Your task to perform on an android device: Open Maps and search for coffee Image 0: 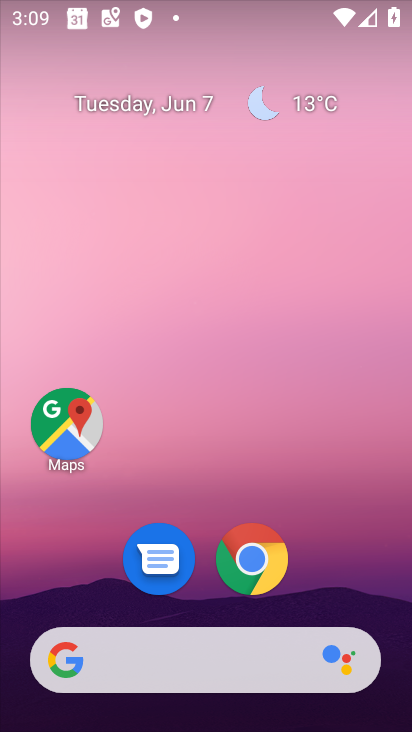
Step 0: click (69, 416)
Your task to perform on an android device: Open Maps and search for coffee Image 1: 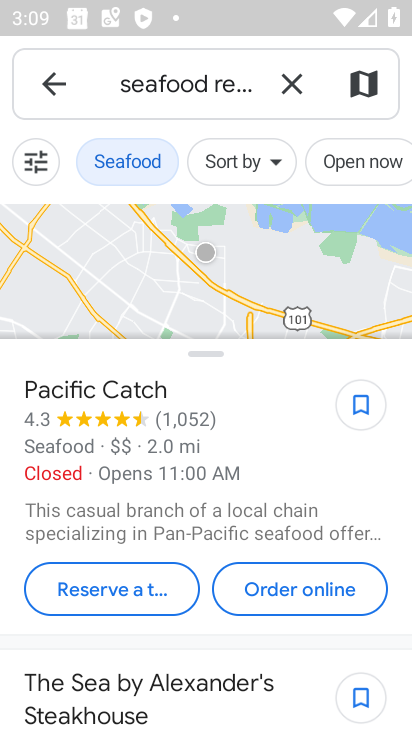
Step 1: click (296, 84)
Your task to perform on an android device: Open Maps and search for coffee Image 2: 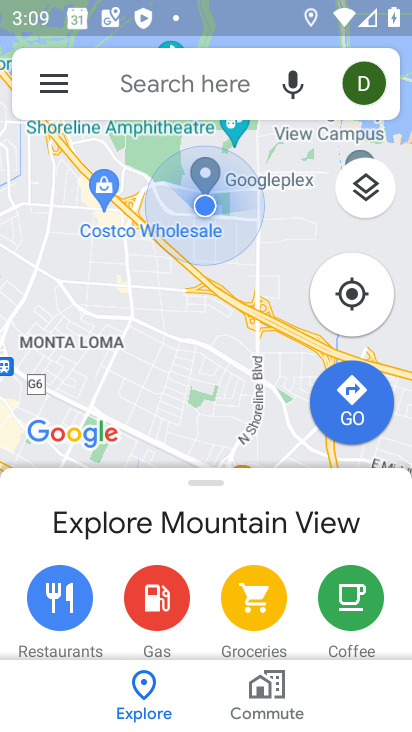
Step 2: click (192, 82)
Your task to perform on an android device: Open Maps and search for coffee Image 3: 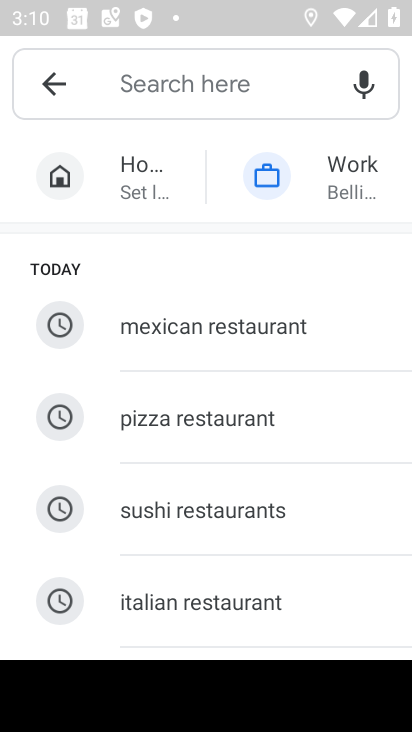
Step 3: type "coffee"
Your task to perform on an android device: Open Maps and search for coffee Image 4: 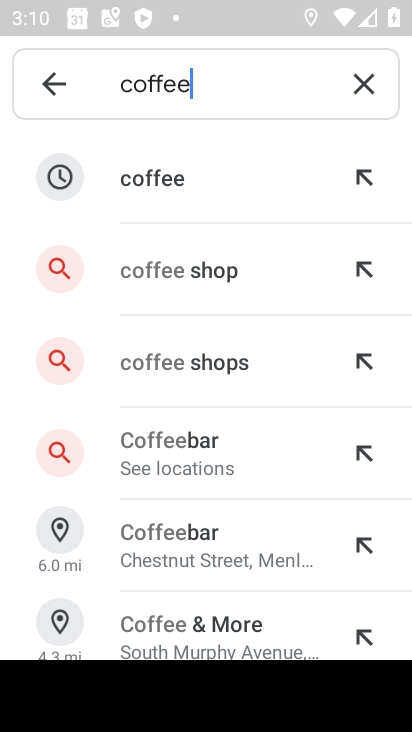
Step 4: click (161, 182)
Your task to perform on an android device: Open Maps and search for coffee Image 5: 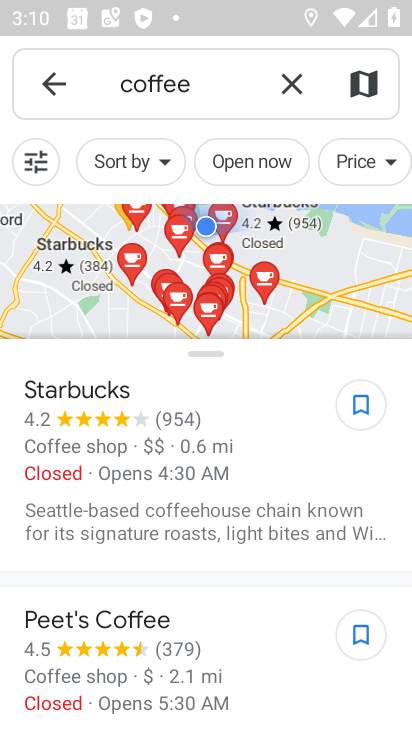
Step 5: task complete